Your task to perform on an android device: change the upload size in google photos Image 0: 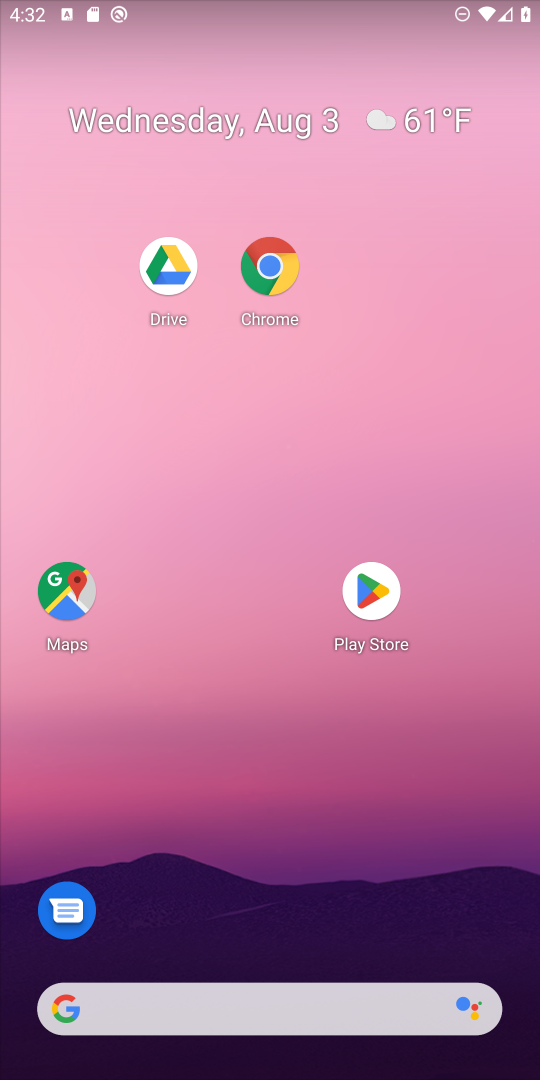
Step 0: drag from (317, 605) to (389, 14)
Your task to perform on an android device: change the upload size in google photos Image 1: 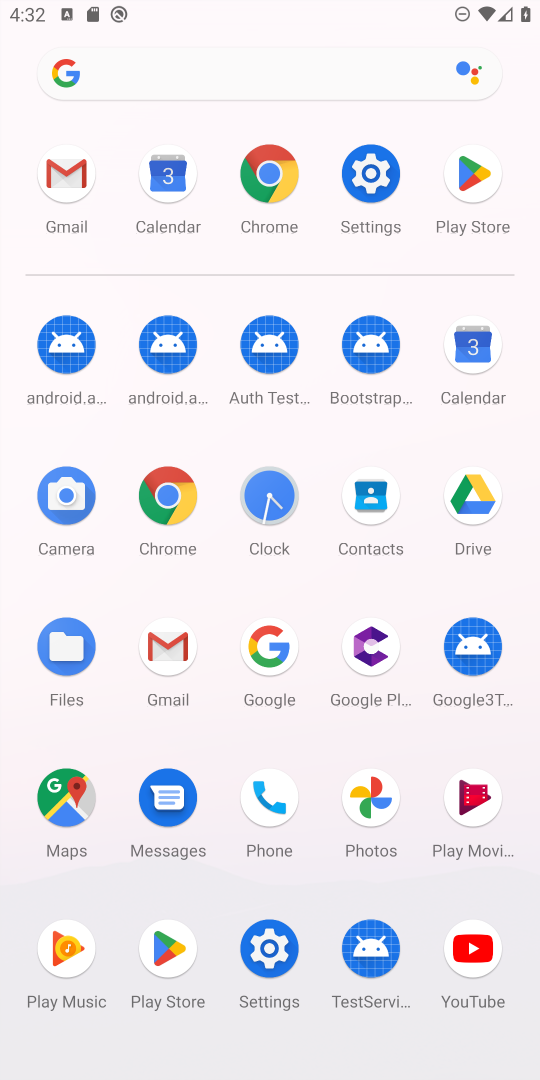
Step 1: click (376, 808)
Your task to perform on an android device: change the upload size in google photos Image 2: 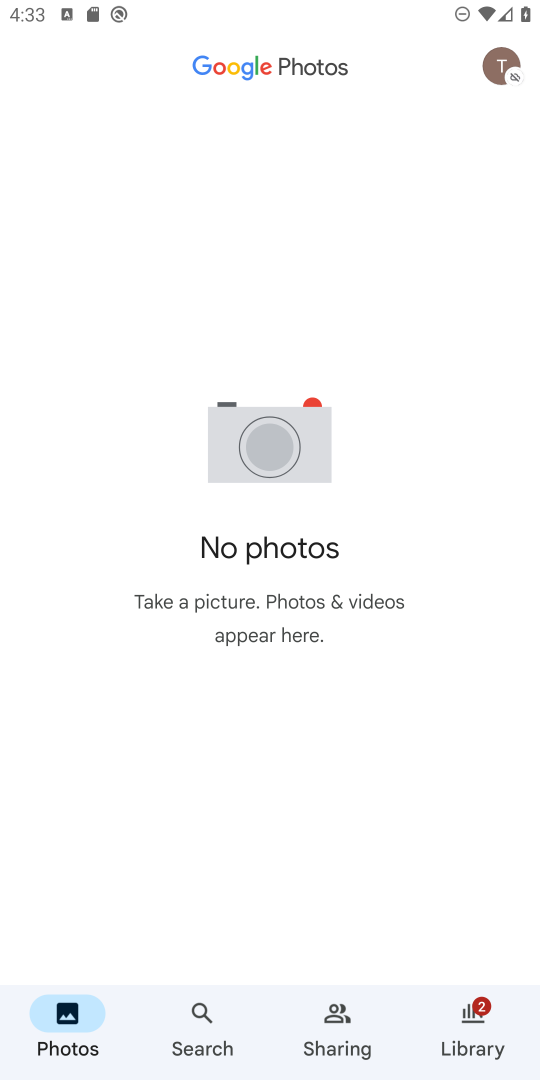
Step 2: click (503, 64)
Your task to perform on an android device: change the upload size in google photos Image 3: 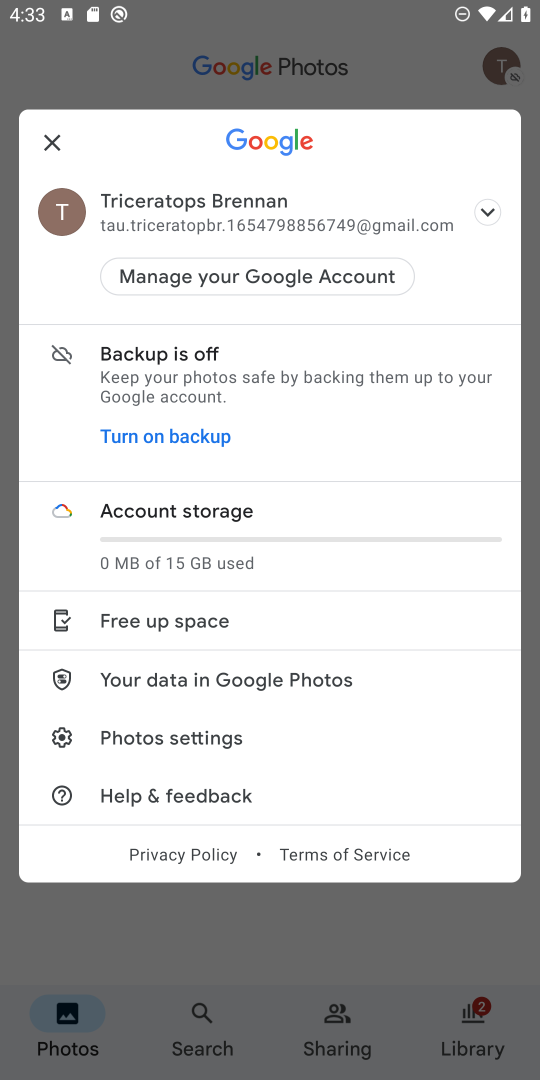
Step 3: click (168, 738)
Your task to perform on an android device: change the upload size in google photos Image 4: 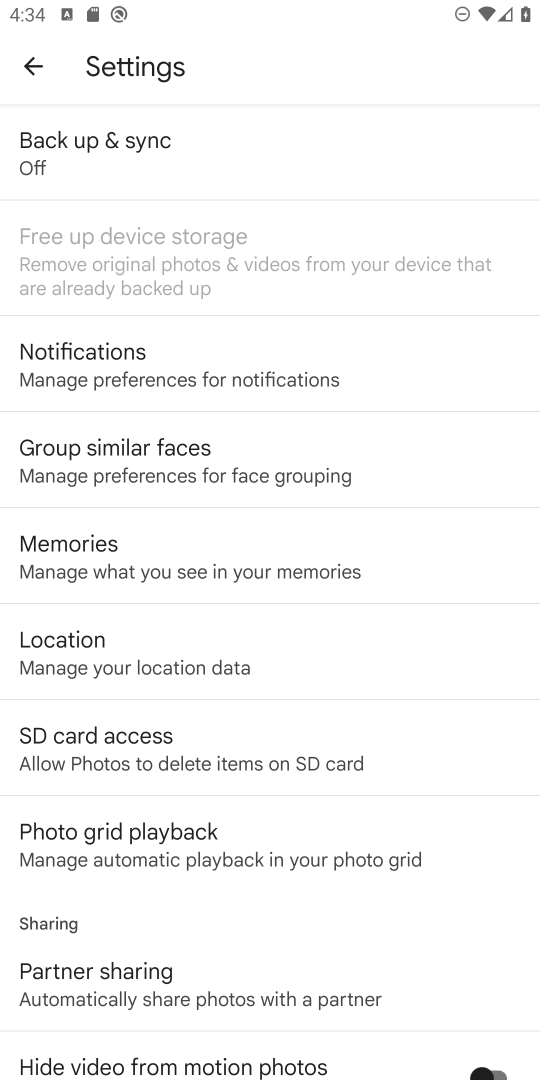
Step 4: click (146, 159)
Your task to perform on an android device: change the upload size in google photos Image 5: 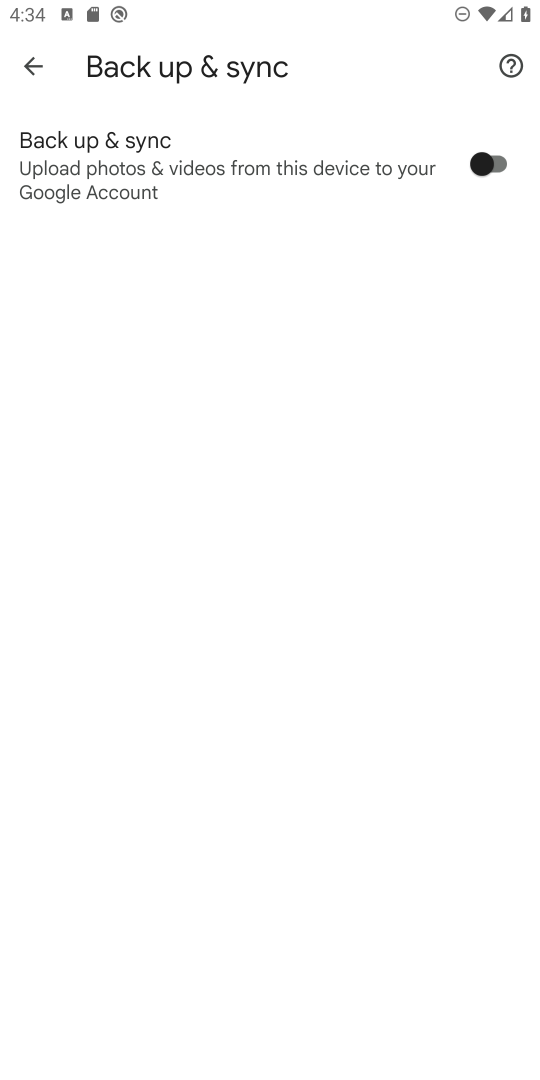
Step 5: click (502, 165)
Your task to perform on an android device: change the upload size in google photos Image 6: 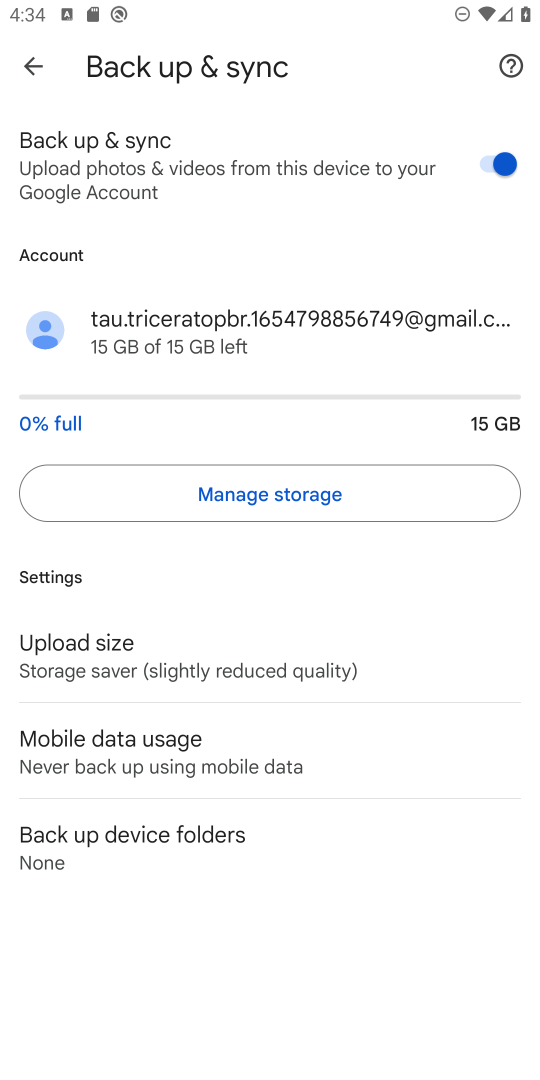
Step 6: click (180, 655)
Your task to perform on an android device: change the upload size in google photos Image 7: 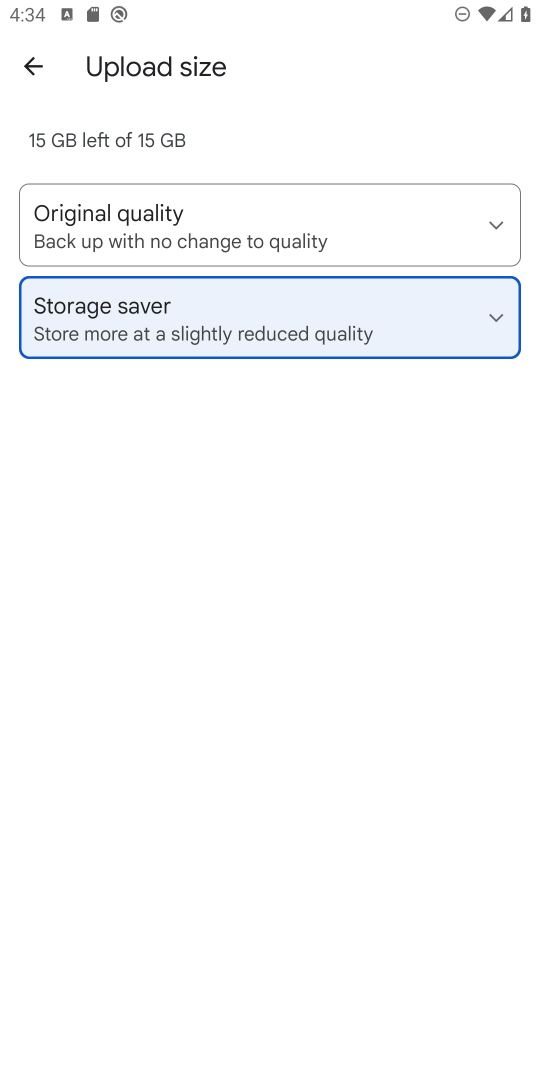
Step 7: click (196, 232)
Your task to perform on an android device: change the upload size in google photos Image 8: 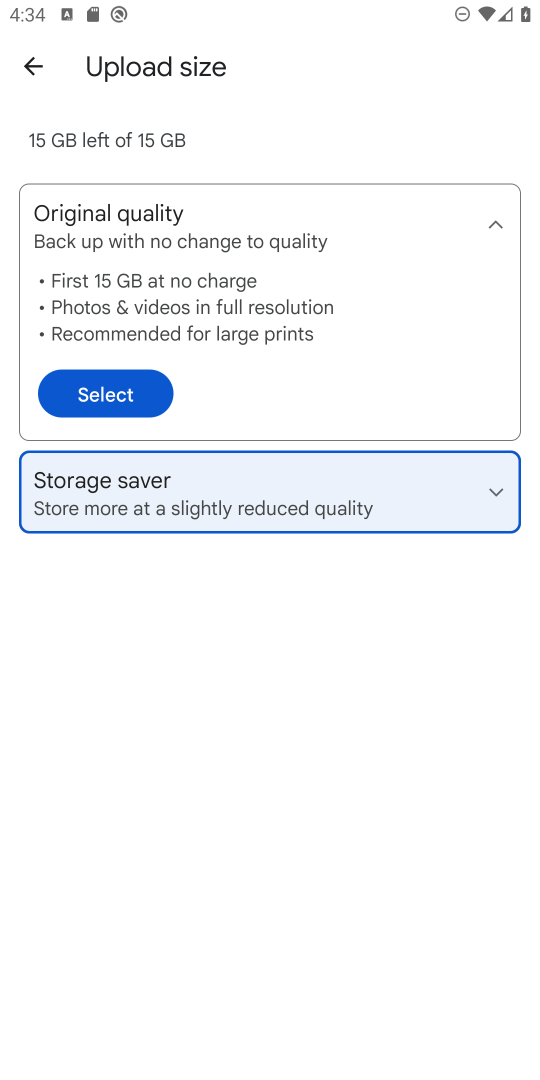
Step 8: click (120, 375)
Your task to perform on an android device: change the upload size in google photos Image 9: 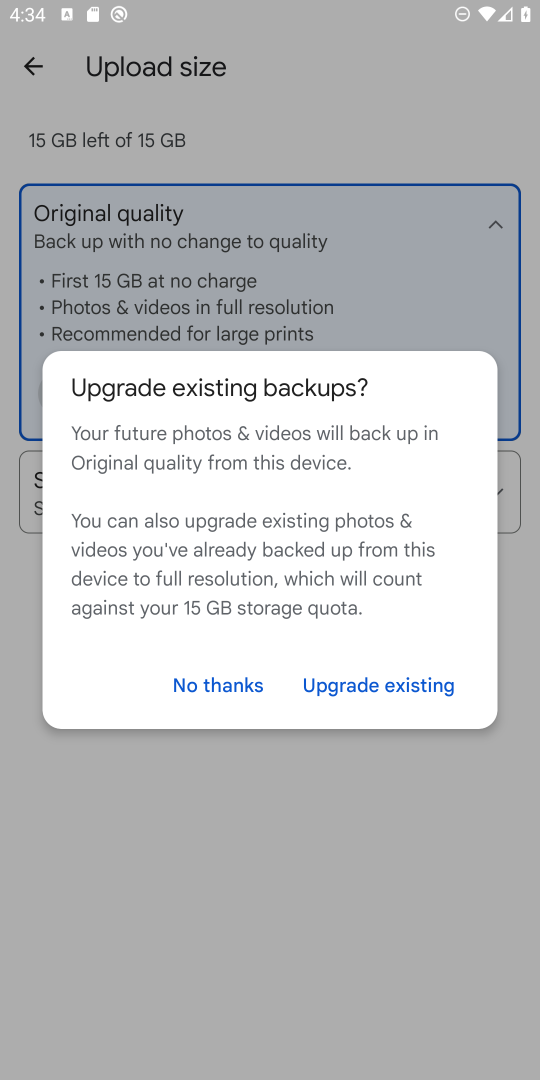
Step 9: click (352, 683)
Your task to perform on an android device: change the upload size in google photos Image 10: 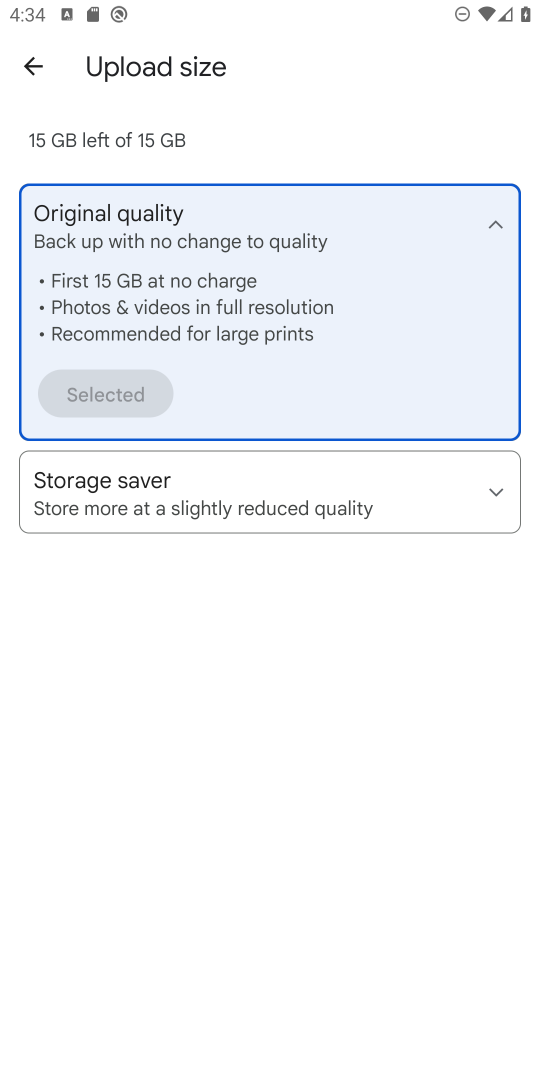
Step 10: task complete